Your task to perform on an android device: visit the assistant section in the google photos Image 0: 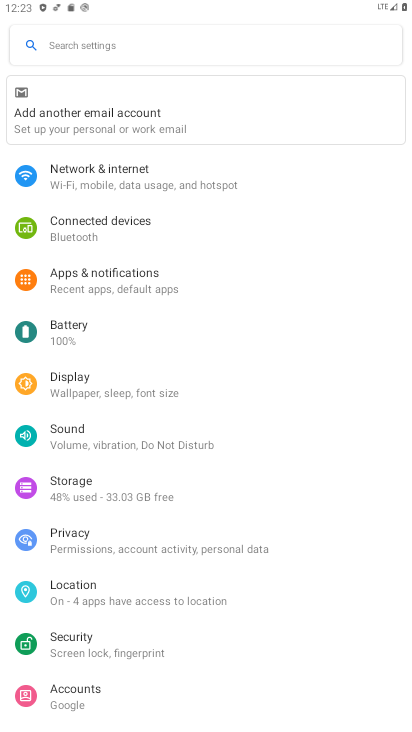
Step 0: press home button
Your task to perform on an android device: visit the assistant section in the google photos Image 1: 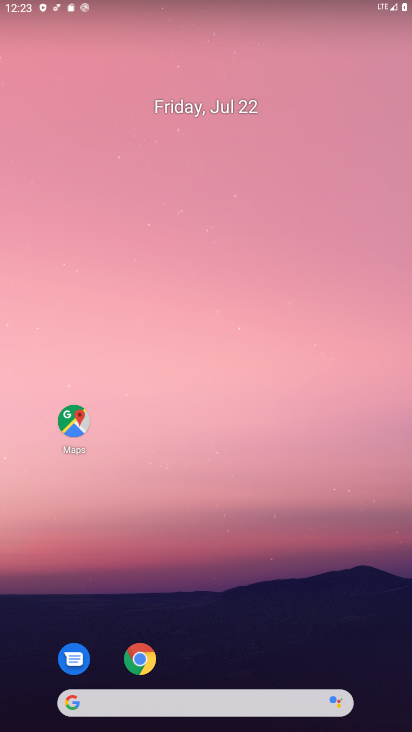
Step 1: drag from (208, 613) to (294, 286)
Your task to perform on an android device: visit the assistant section in the google photos Image 2: 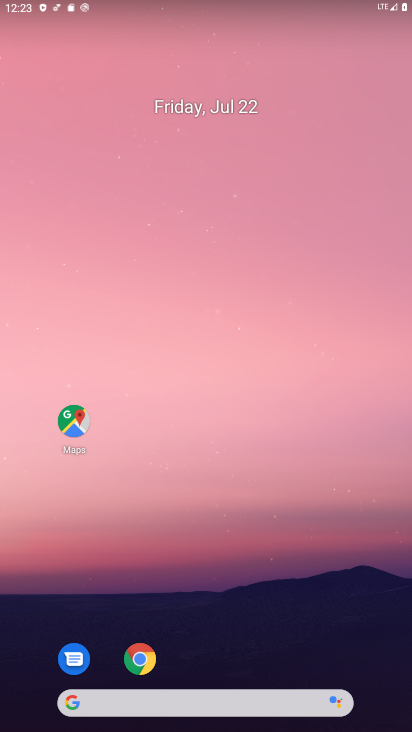
Step 2: drag from (194, 647) to (237, 203)
Your task to perform on an android device: visit the assistant section in the google photos Image 3: 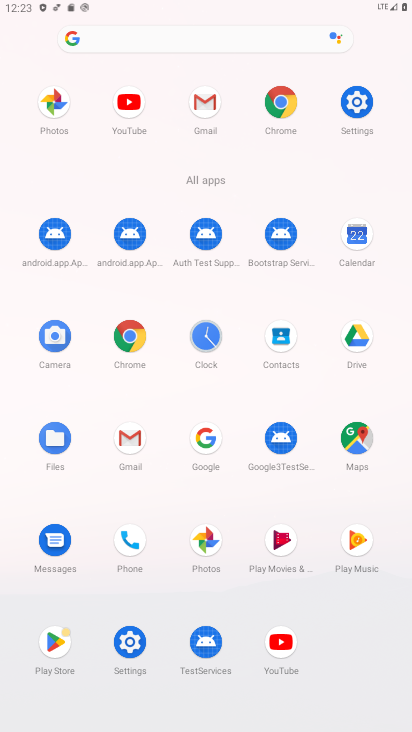
Step 3: click (200, 529)
Your task to perform on an android device: visit the assistant section in the google photos Image 4: 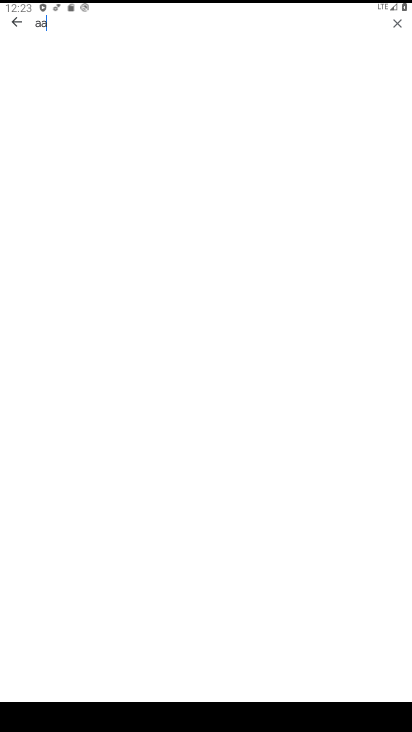
Step 4: click (15, 34)
Your task to perform on an android device: visit the assistant section in the google photos Image 5: 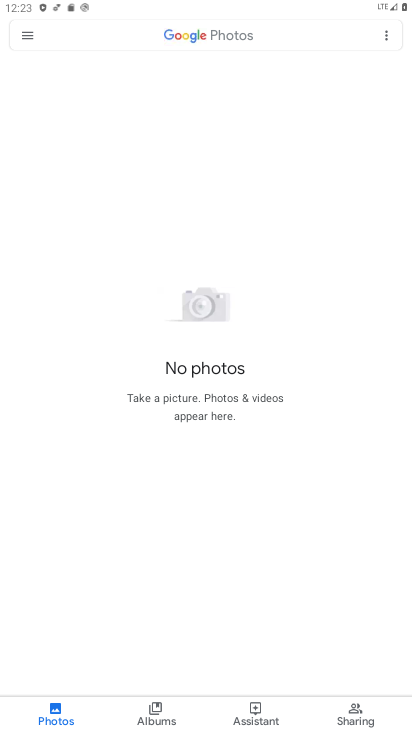
Step 5: click (248, 722)
Your task to perform on an android device: visit the assistant section in the google photos Image 6: 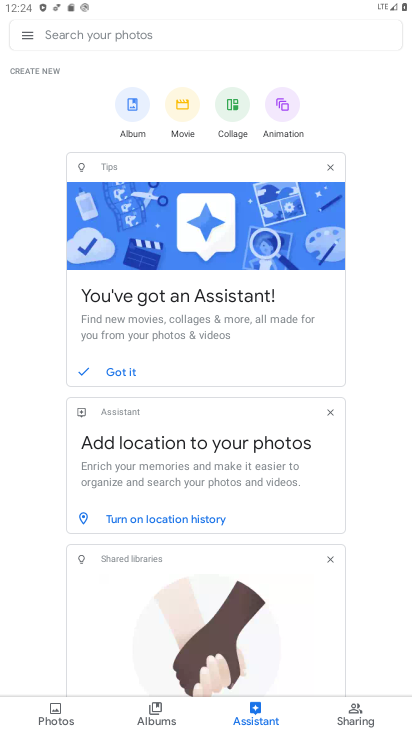
Step 6: task complete